Your task to perform on an android device: toggle airplane mode Image 0: 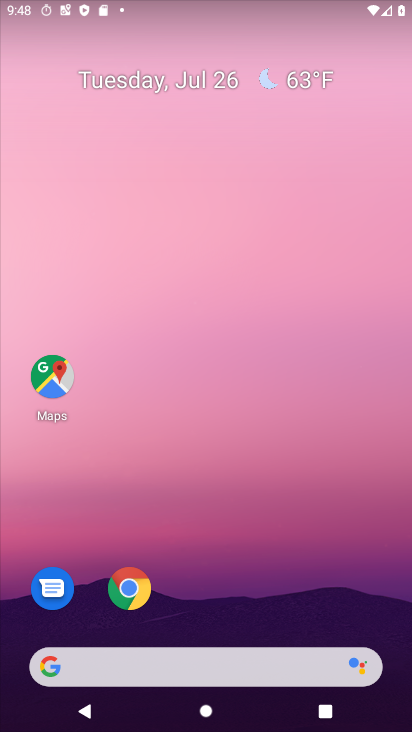
Step 0: drag from (254, 0) to (237, 387)
Your task to perform on an android device: toggle airplane mode Image 1: 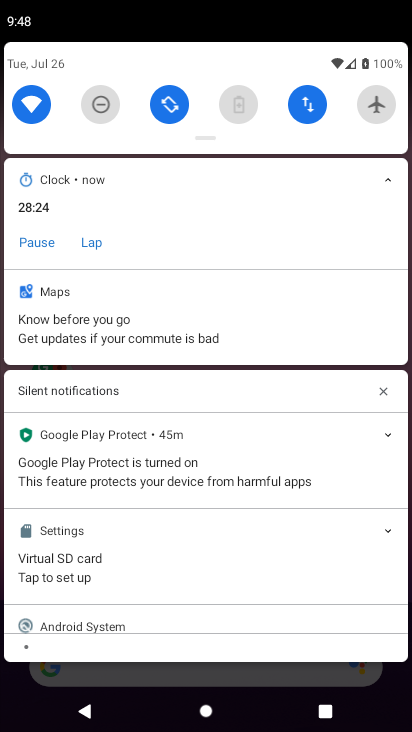
Step 1: click (385, 111)
Your task to perform on an android device: toggle airplane mode Image 2: 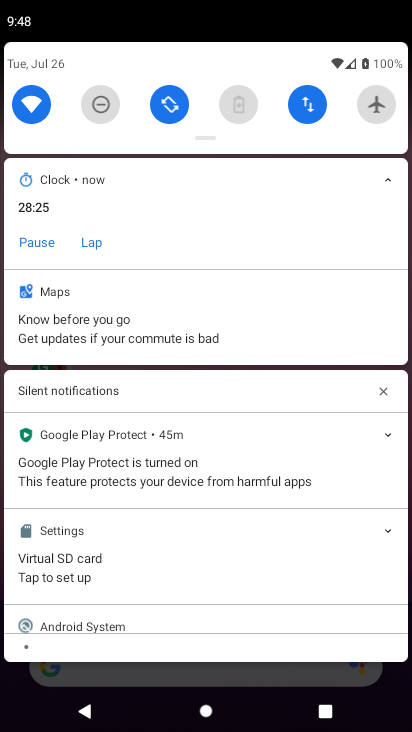
Step 2: click (385, 111)
Your task to perform on an android device: toggle airplane mode Image 3: 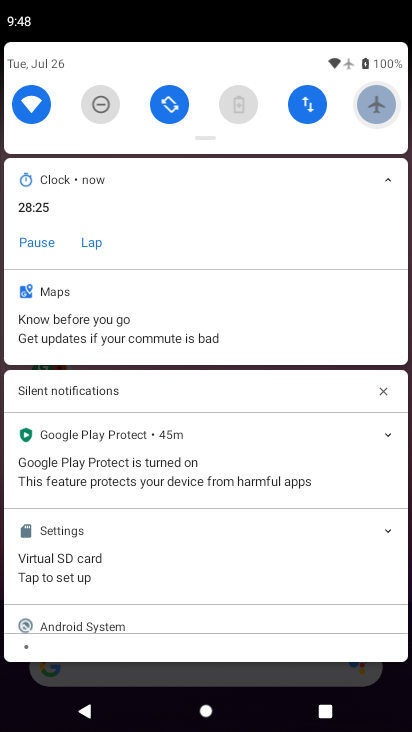
Step 3: click (385, 111)
Your task to perform on an android device: toggle airplane mode Image 4: 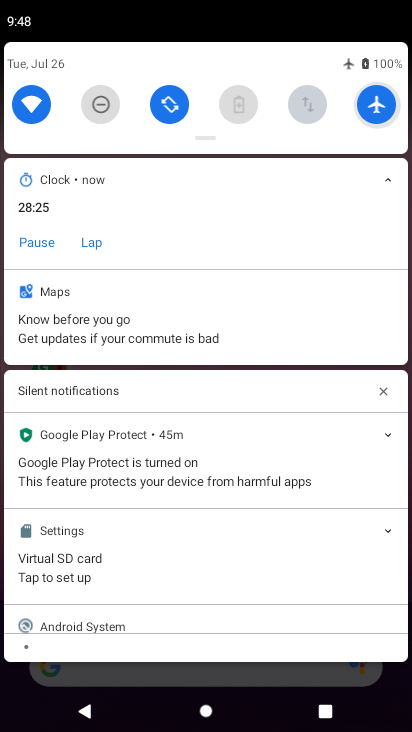
Step 4: click (385, 111)
Your task to perform on an android device: toggle airplane mode Image 5: 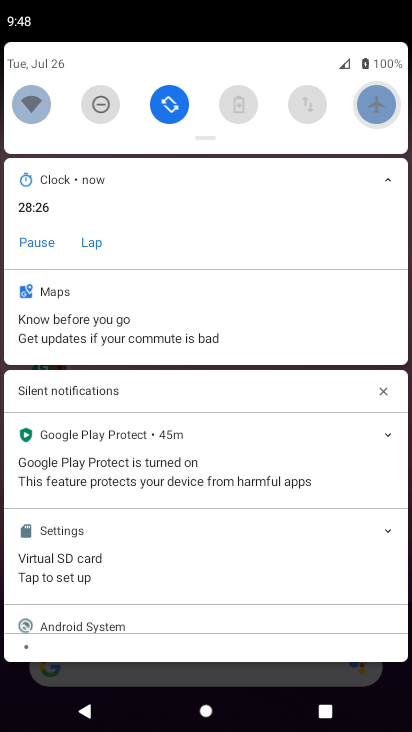
Step 5: click (385, 111)
Your task to perform on an android device: toggle airplane mode Image 6: 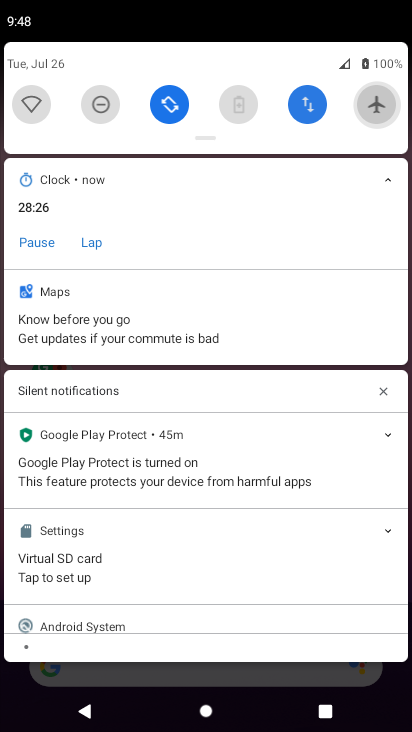
Step 6: click (385, 111)
Your task to perform on an android device: toggle airplane mode Image 7: 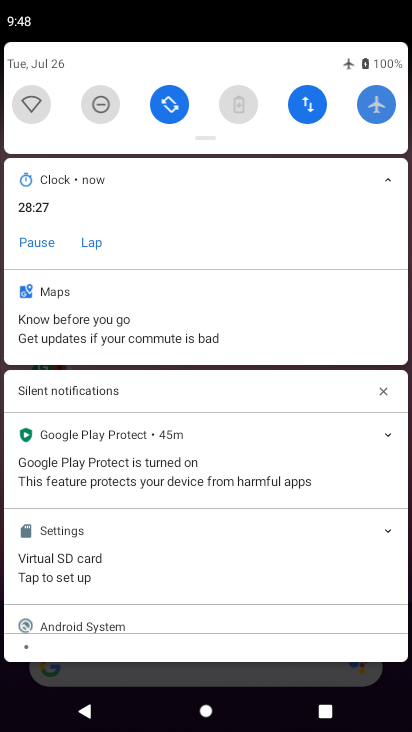
Step 7: click (385, 111)
Your task to perform on an android device: toggle airplane mode Image 8: 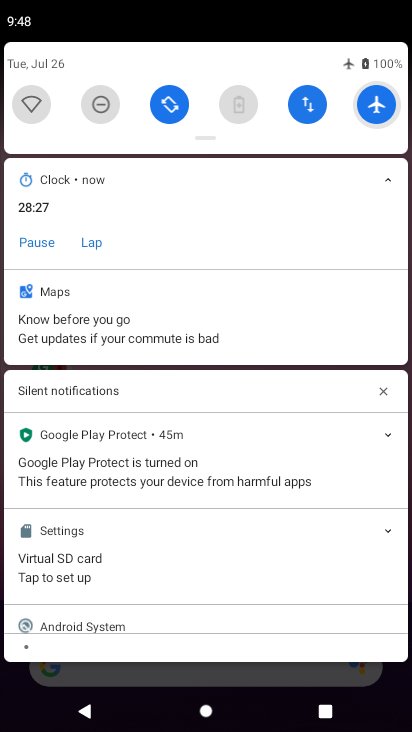
Step 8: click (385, 111)
Your task to perform on an android device: toggle airplane mode Image 9: 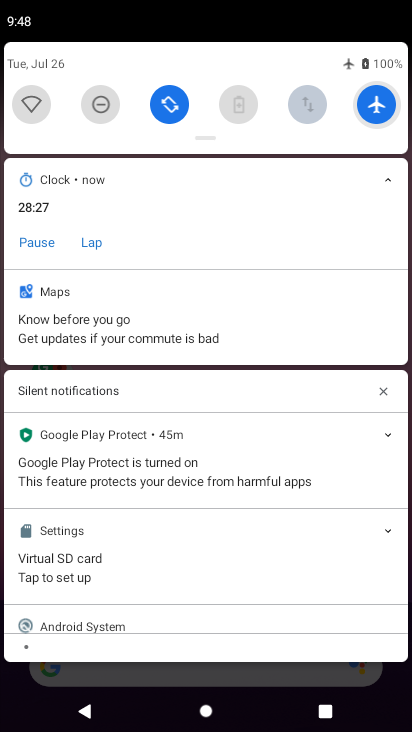
Step 9: click (385, 111)
Your task to perform on an android device: toggle airplane mode Image 10: 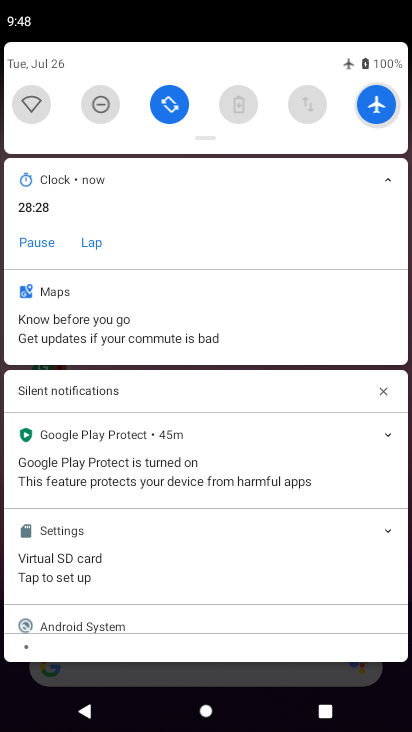
Step 10: click (385, 111)
Your task to perform on an android device: toggle airplane mode Image 11: 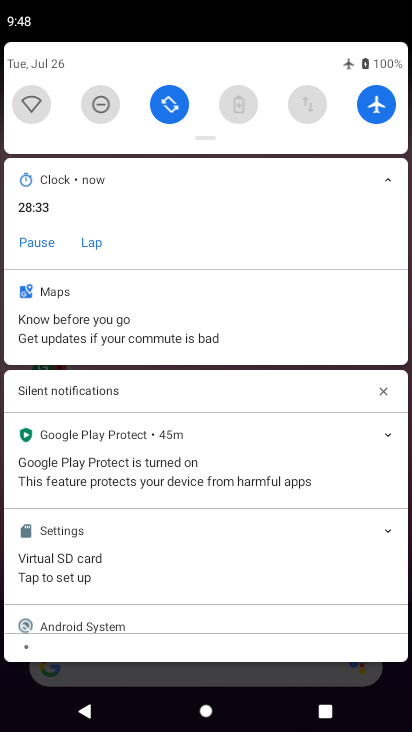
Step 11: click (385, 111)
Your task to perform on an android device: toggle airplane mode Image 12: 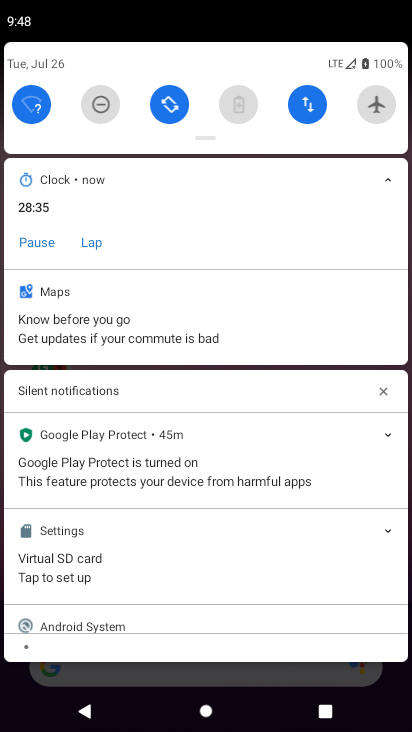
Step 12: task complete